Your task to perform on an android device: Go to Reddit.com Image 0: 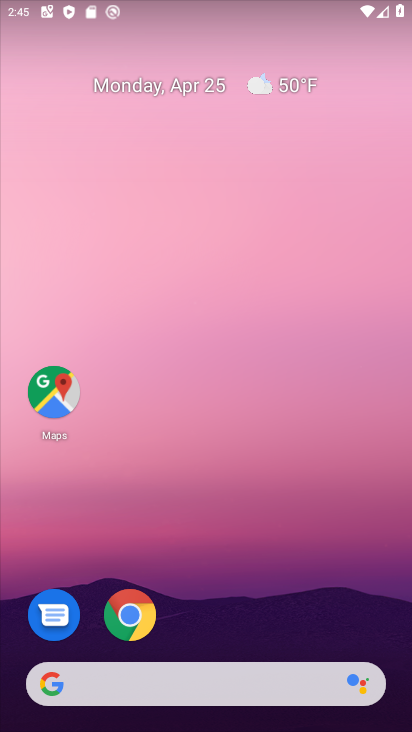
Step 0: click (129, 621)
Your task to perform on an android device: Go to Reddit.com Image 1: 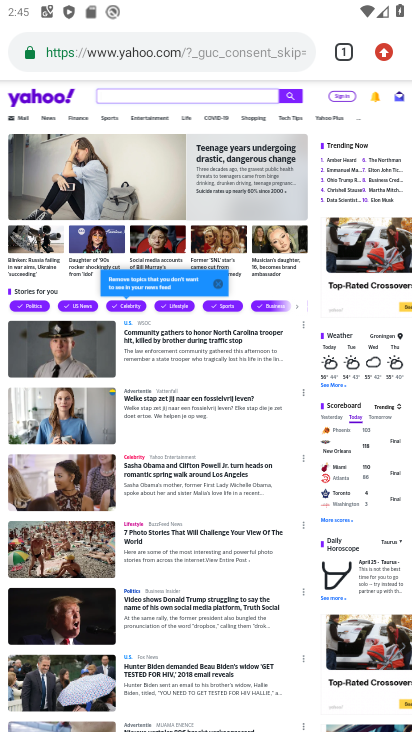
Step 1: click (380, 59)
Your task to perform on an android device: Go to Reddit.com Image 2: 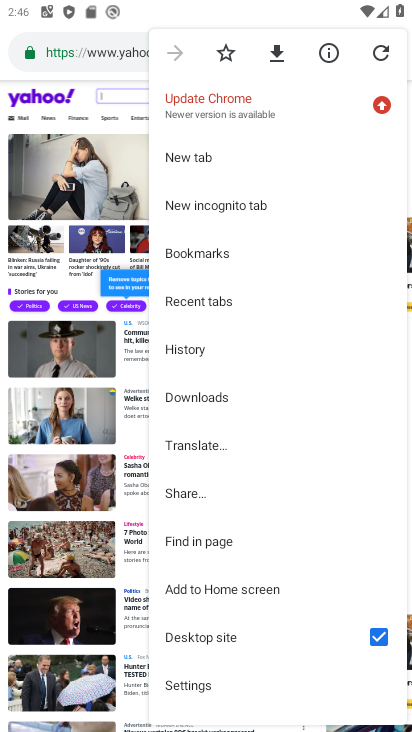
Step 2: click (186, 157)
Your task to perform on an android device: Go to Reddit.com Image 3: 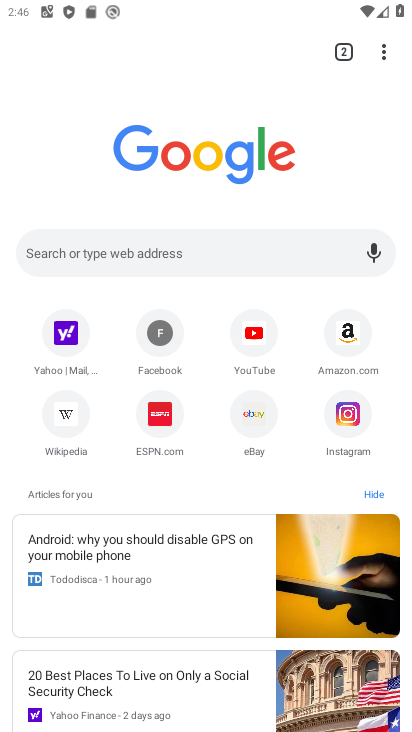
Step 3: click (172, 250)
Your task to perform on an android device: Go to Reddit.com Image 4: 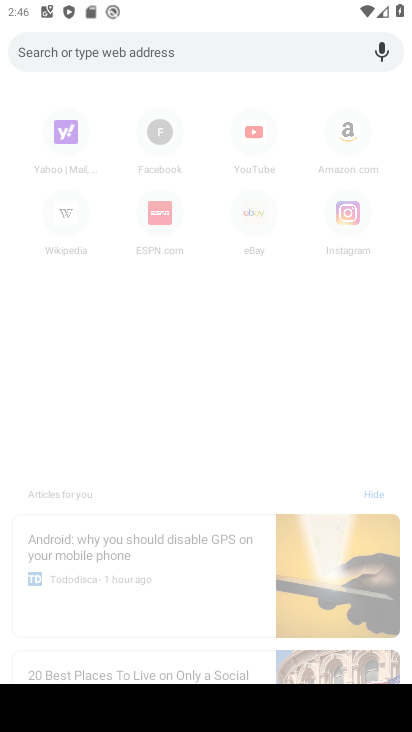
Step 4: type "Reddit.com"
Your task to perform on an android device: Go to Reddit.com Image 5: 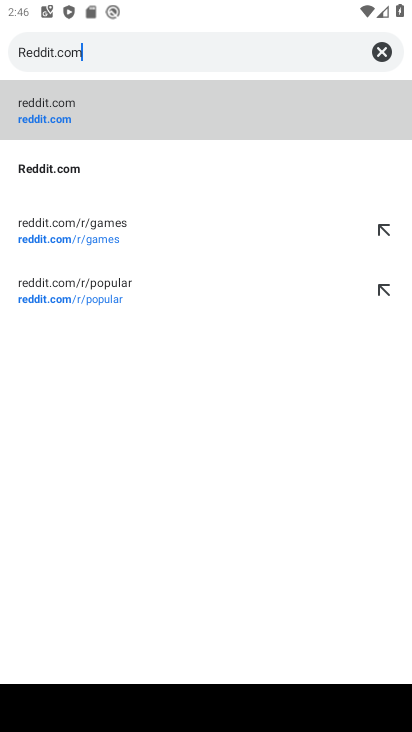
Step 5: click (45, 111)
Your task to perform on an android device: Go to Reddit.com Image 6: 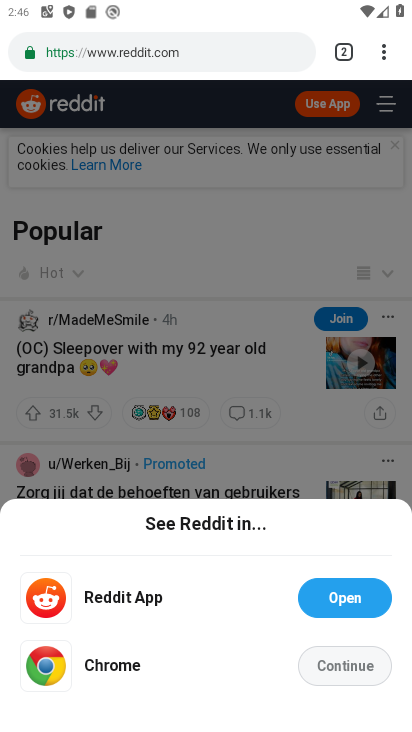
Step 6: task complete